Your task to perform on an android device: Show me recent news Image 0: 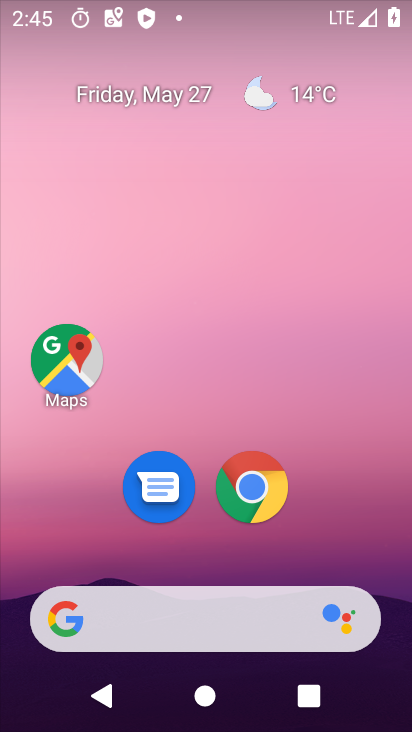
Step 0: drag from (323, 504) to (364, 145)
Your task to perform on an android device: Show me recent news Image 1: 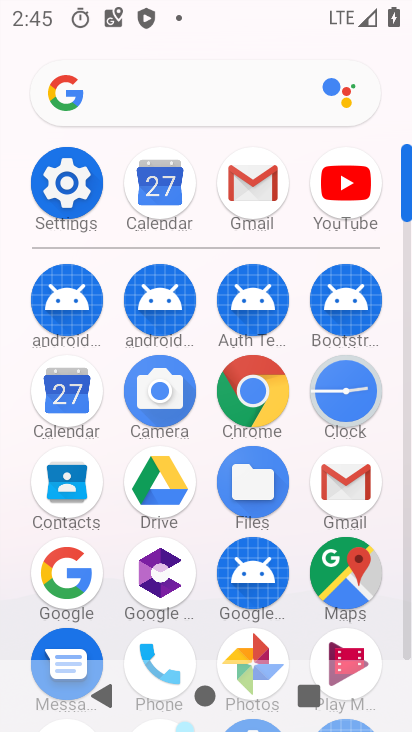
Step 1: drag from (203, 530) to (258, 183)
Your task to perform on an android device: Show me recent news Image 2: 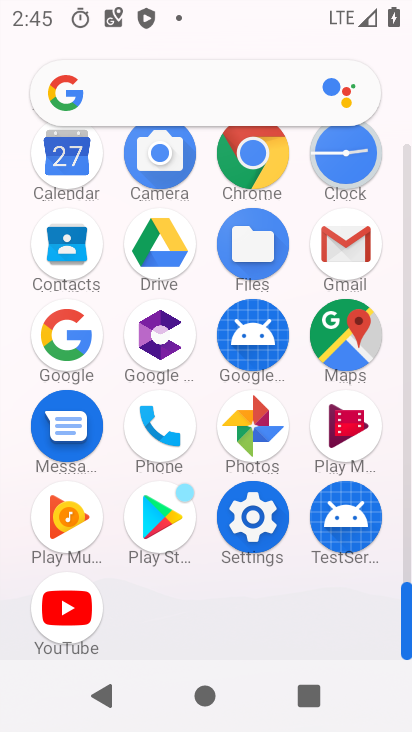
Step 2: click (251, 167)
Your task to perform on an android device: Show me recent news Image 3: 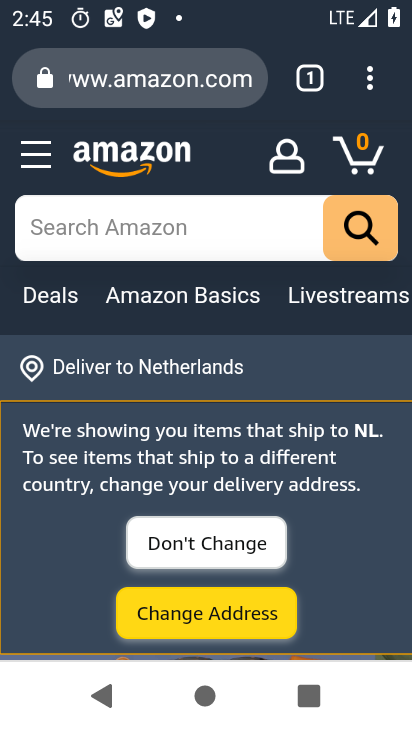
Step 3: click (173, 86)
Your task to perform on an android device: Show me recent news Image 4: 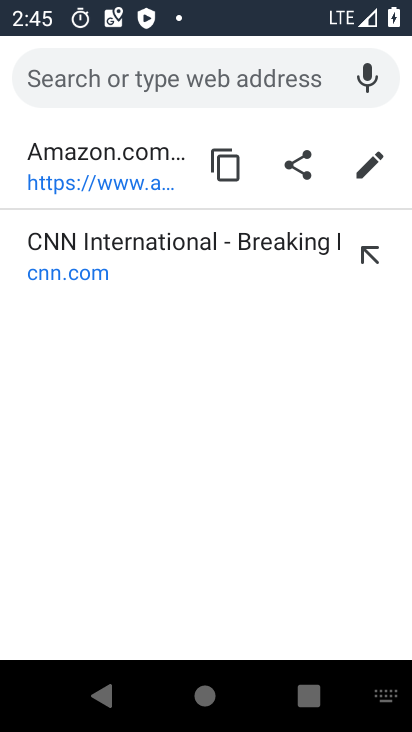
Step 4: type "news"
Your task to perform on an android device: Show me recent news Image 5: 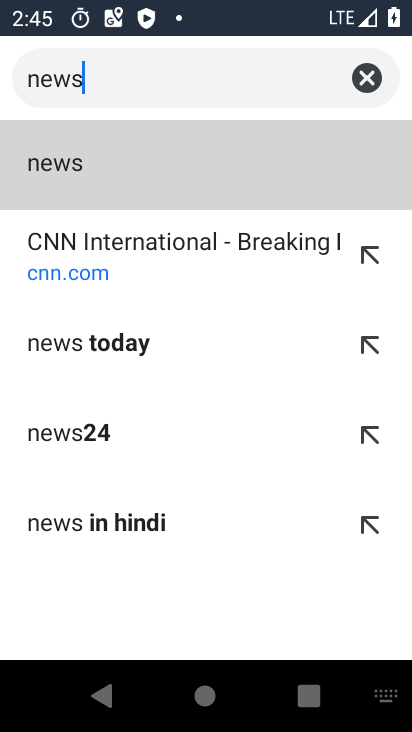
Step 5: click (59, 159)
Your task to perform on an android device: Show me recent news Image 6: 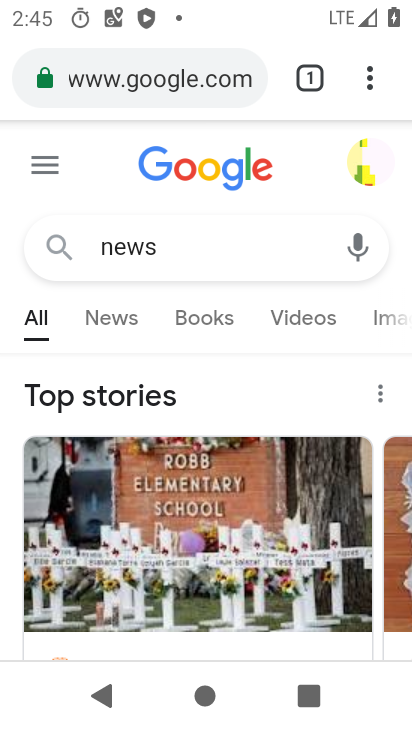
Step 6: click (118, 317)
Your task to perform on an android device: Show me recent news Image 7: 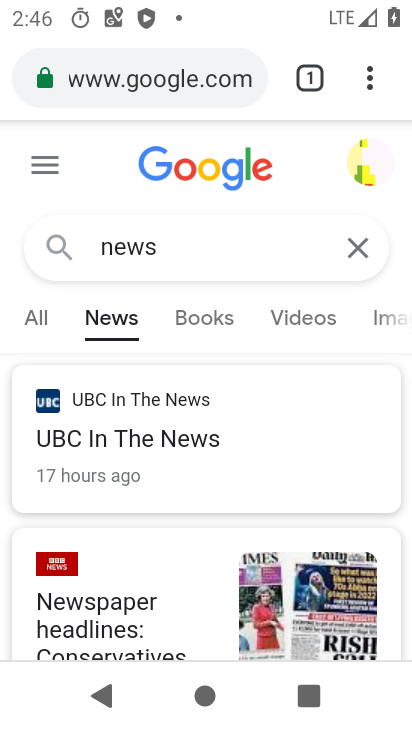
Step 7: task complete